Your task to perform on an android device: Open settings on Google Maps Image 0: 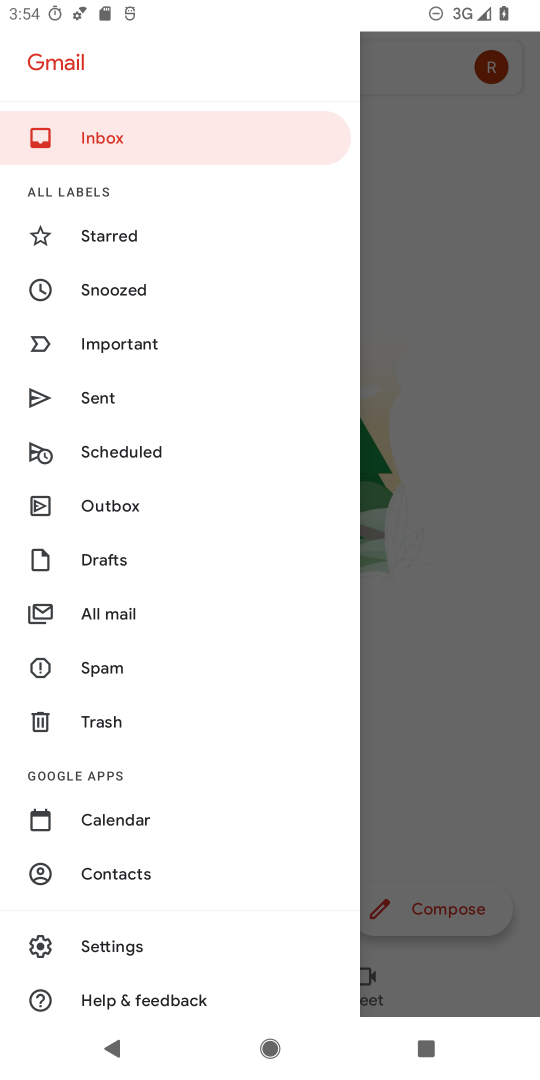
Step 0: press home button
Your task to perform on an android device: Open settings on Google Maps Image 1: 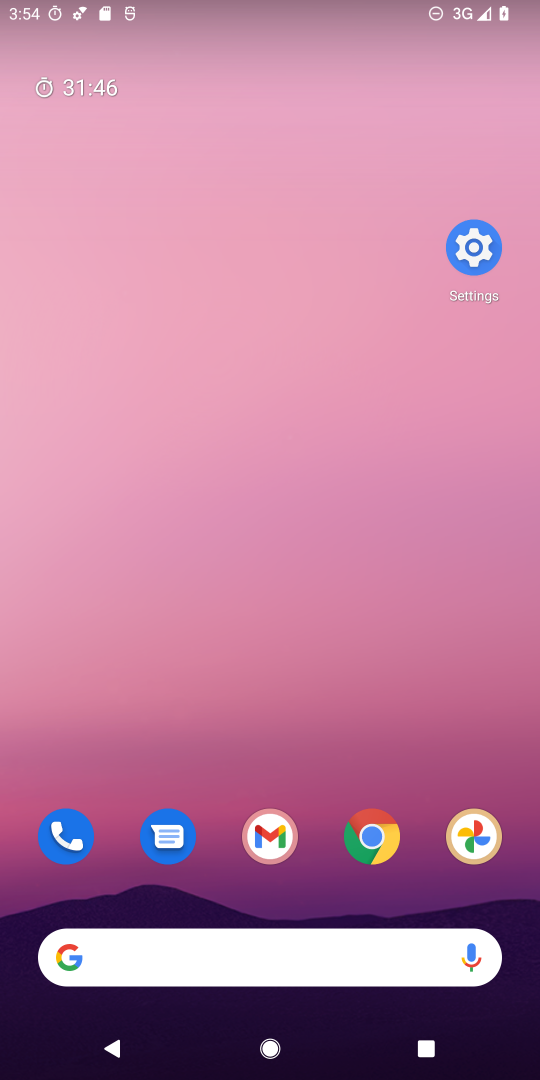
Step 1: drag from (259, 907) to (324, 300)
Your task to perform on an android device: Open settings on Google Maps Image 2: 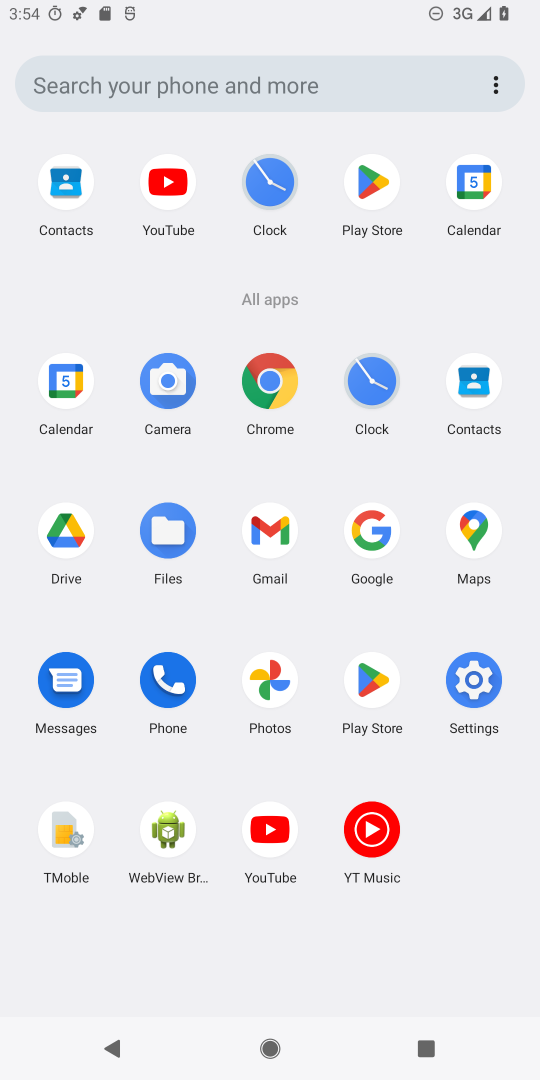
Step 2: click (489, 703)
Your task to perform on an android device: Open settings on Google Maps Image 3: 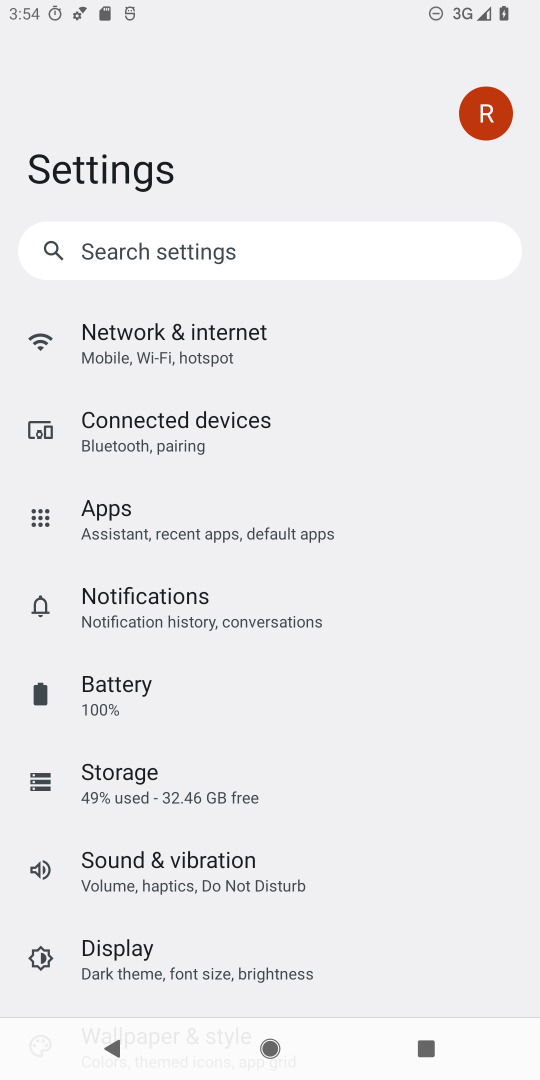
Step 3: press home button
Your task to perform on an android device: Open settings on Google Maps Image 4: 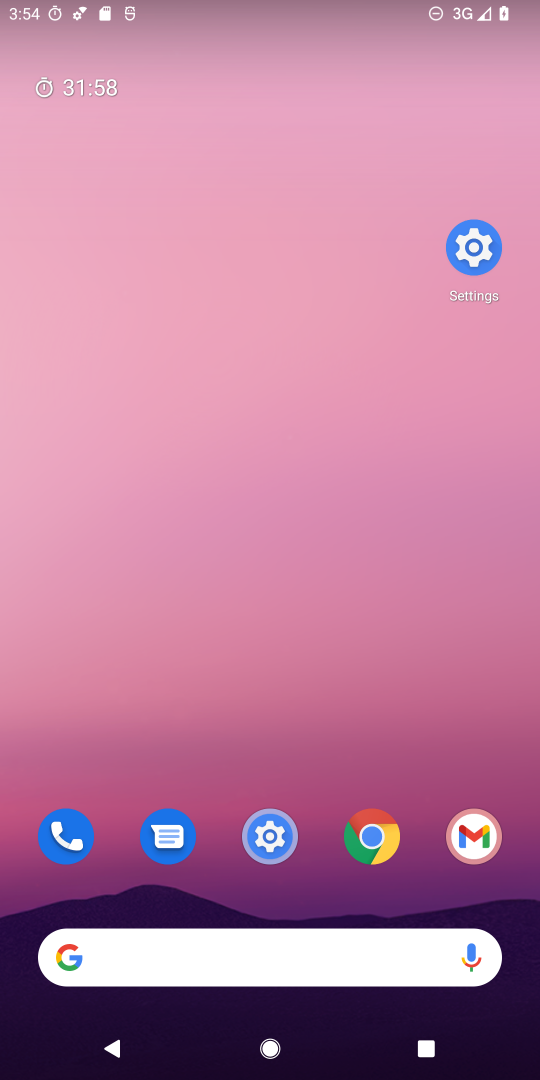
Step 4: drag from (204, 552) to (206, 90)
Your task to perform on an android device: Open settings on Google Maps Image 5: 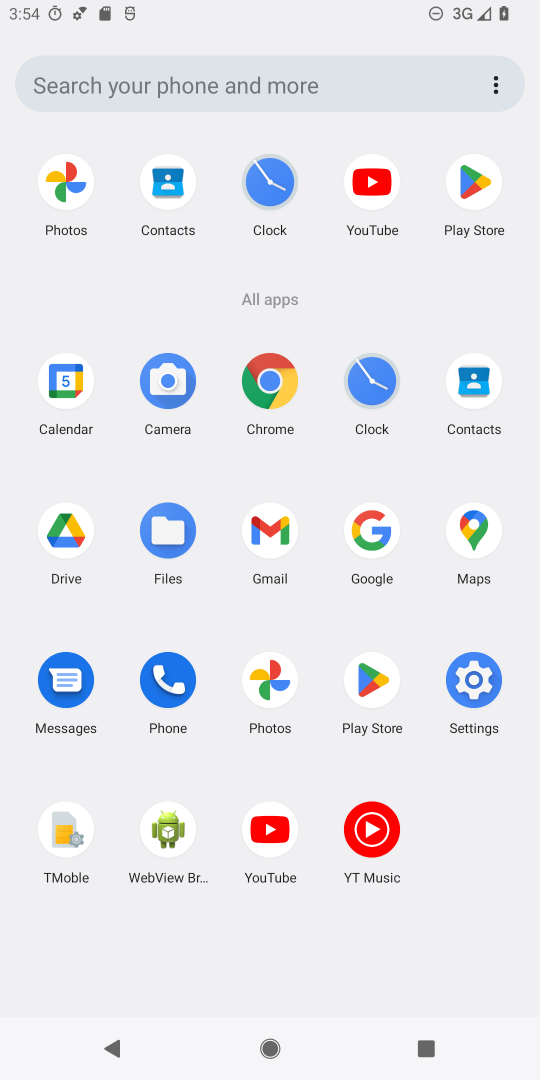
Step 5: click (485, 560)
Your task to perform on an android device: Open settings on Google Maps Image 6: 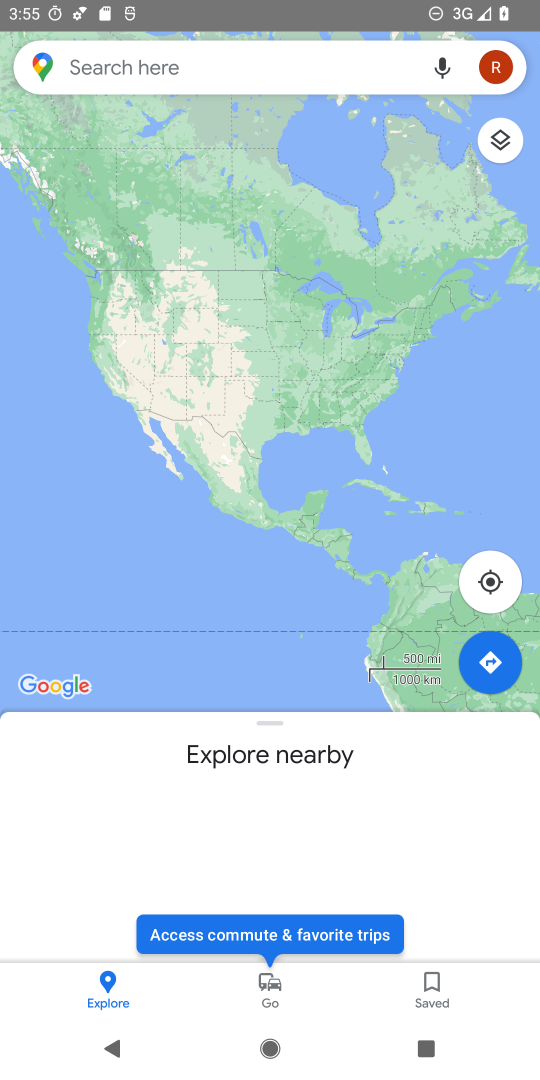
Step 6: click (504, 70)
Your task to perform on an android device: Open settings on Google Maps Image 7: 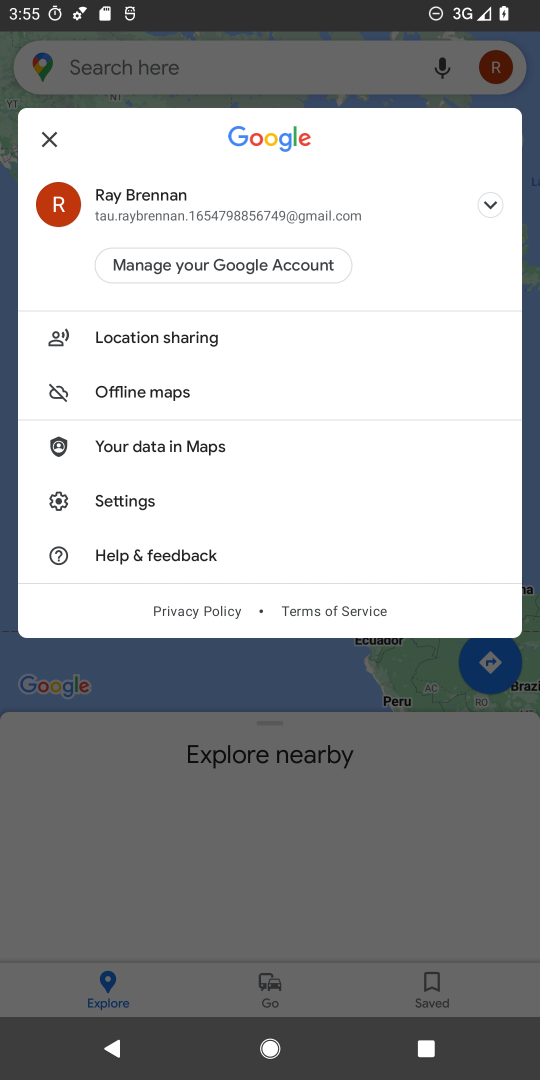
Step 7: click (94, 507)
Your task to perform on an android device: Open settings on Google Maps Image 8: 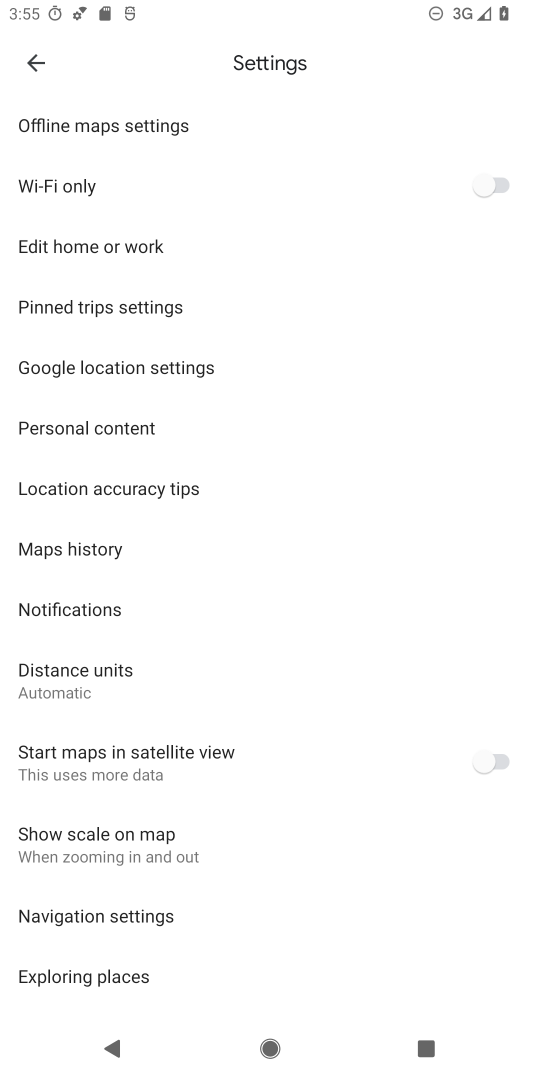
Step 8: task complete